Your task to perform on an android device: Open the map Image 0: 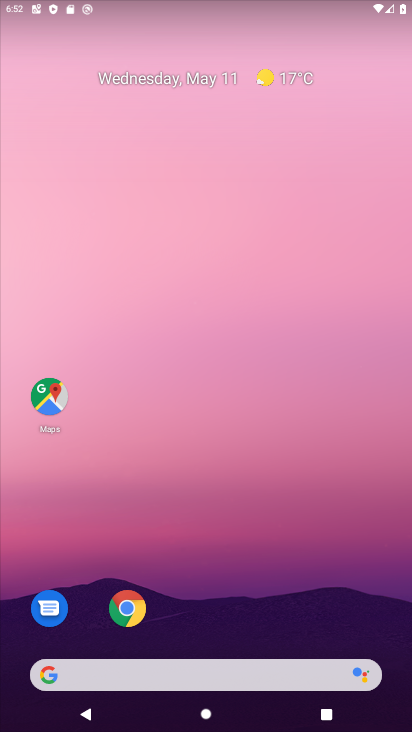
Step 0: click (243, 629)
Your task to perform on an android device: Open the map Image 1: 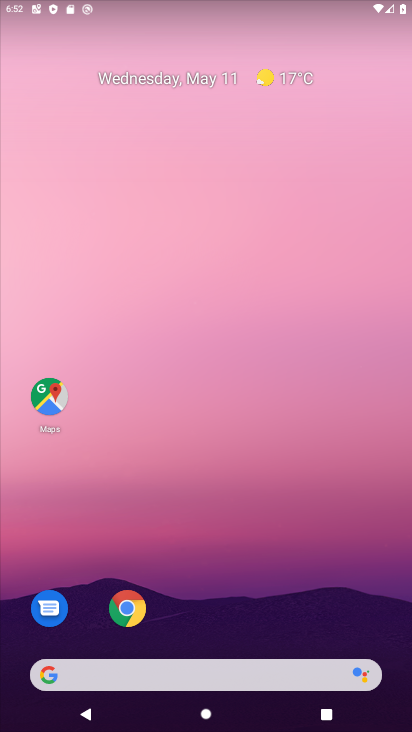
Step 1: click (45, 402)
Your task to perform on an android device: Open the map Image 2: 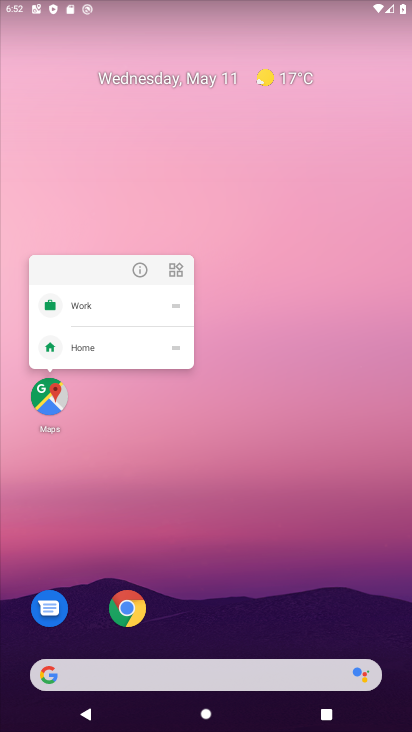
Step 2: click (45, 402)
Your task to perform on an android device: Open the map Image 3: 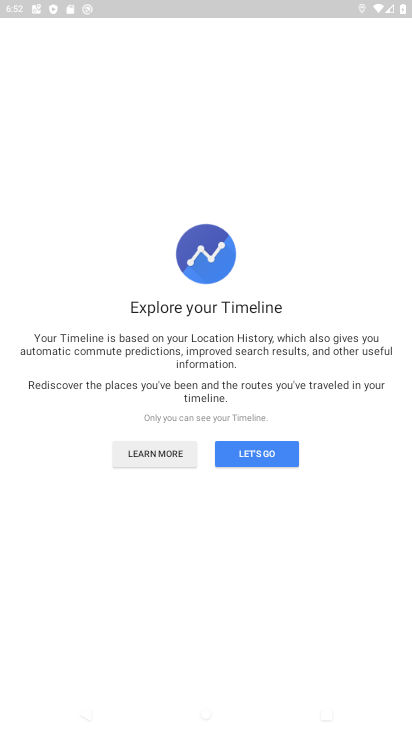
Step 3: click (239, 457)
Your task to perform on an android device: Open the map Image 4: 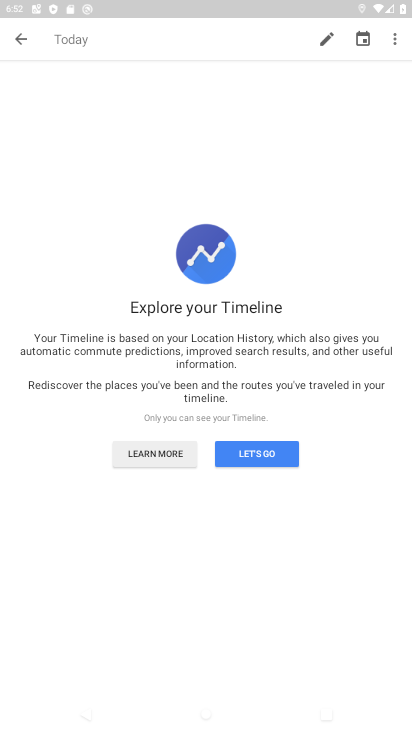
Step 4: task complete